Your task to perform on an android device: open app "Spotify: Music and Podcasts" (install if not already installed) and enter user name: "principled@inbox.com" and password: "arrests" Image 0: 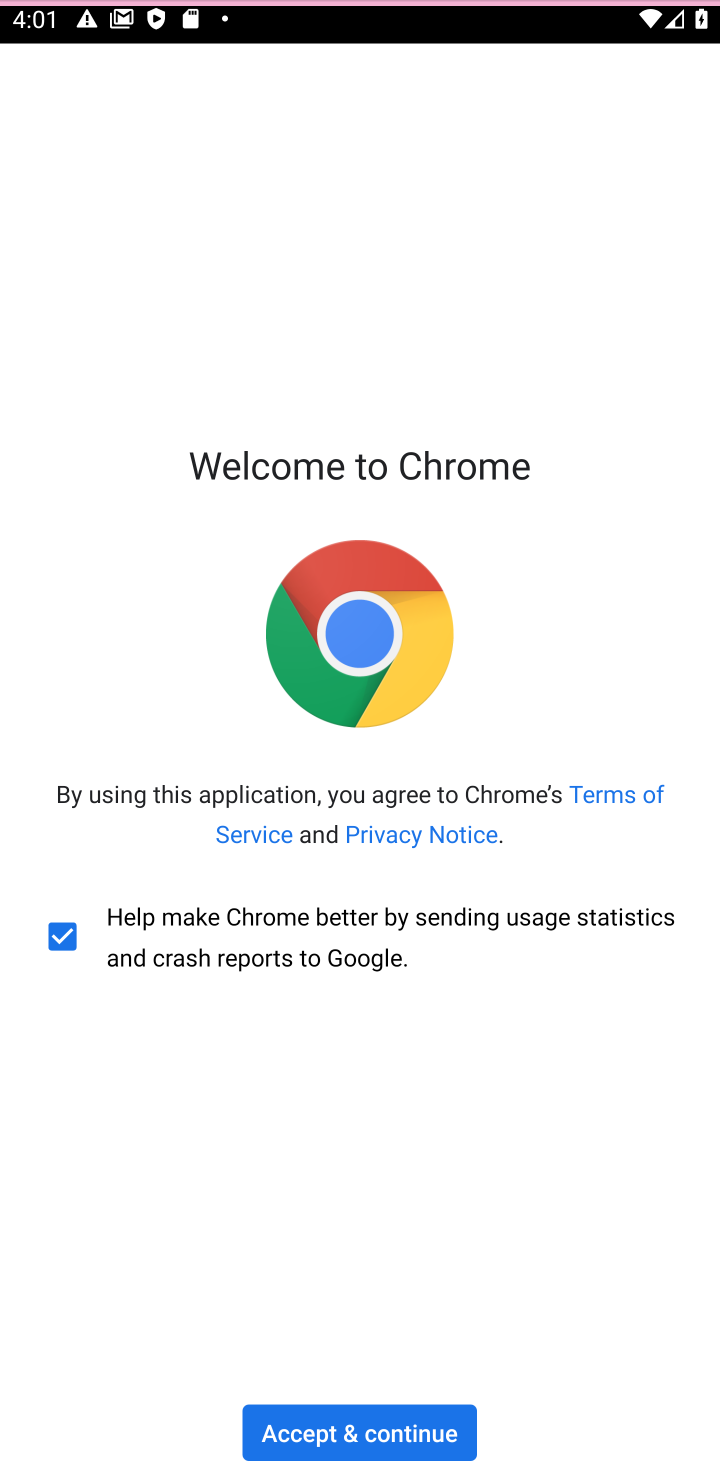
Step 0: press home button
Your task to perform on an android device: open app "Spotify: Music and Podcasts" (install if not already installed) and enter user name: "principled@inbox.com" and password: "arrests" Image 1: 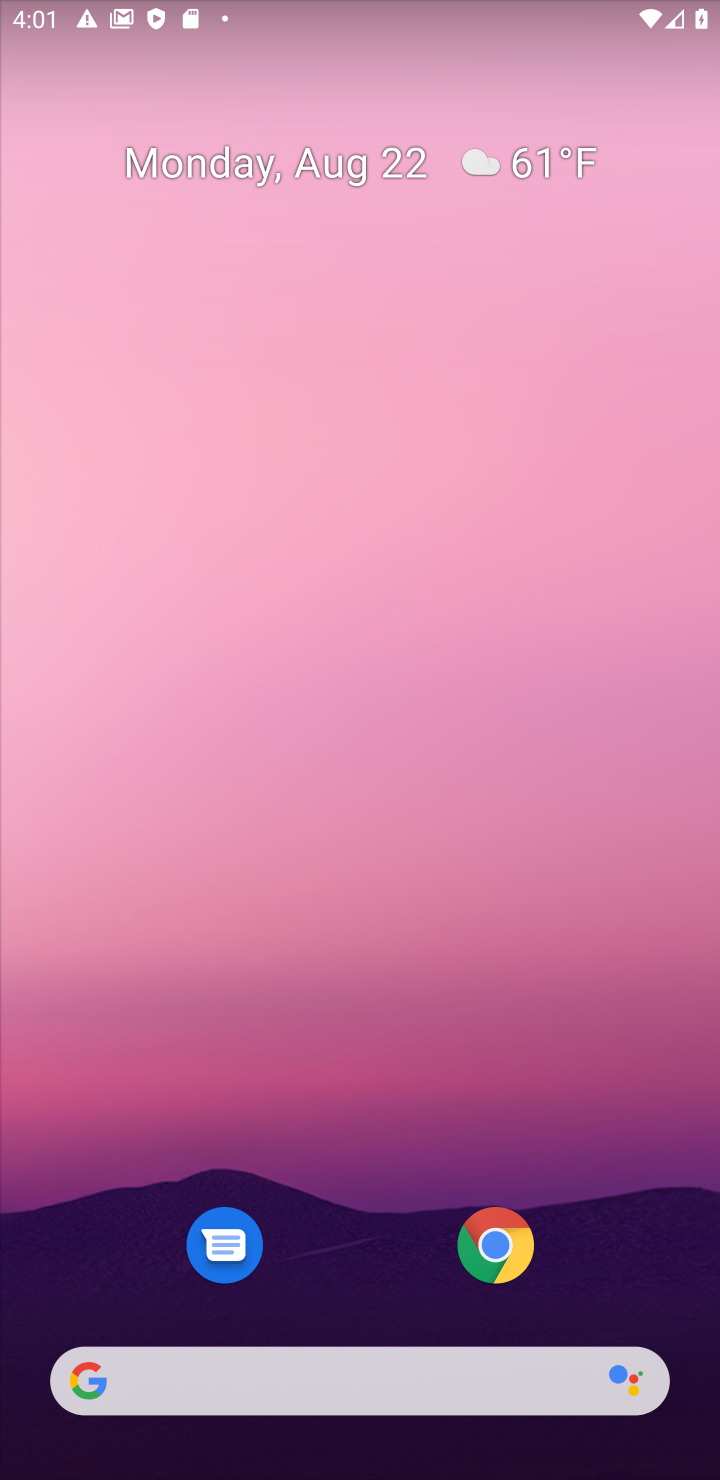
Step 1: drag from (579, 1199) to (590, 240)
Your task to perform on an android device: open app "Spotify: Music and Podcasts" (install if not already installed) and enter user name: "principled@inbox.com" and password: "arrests" Image 2: 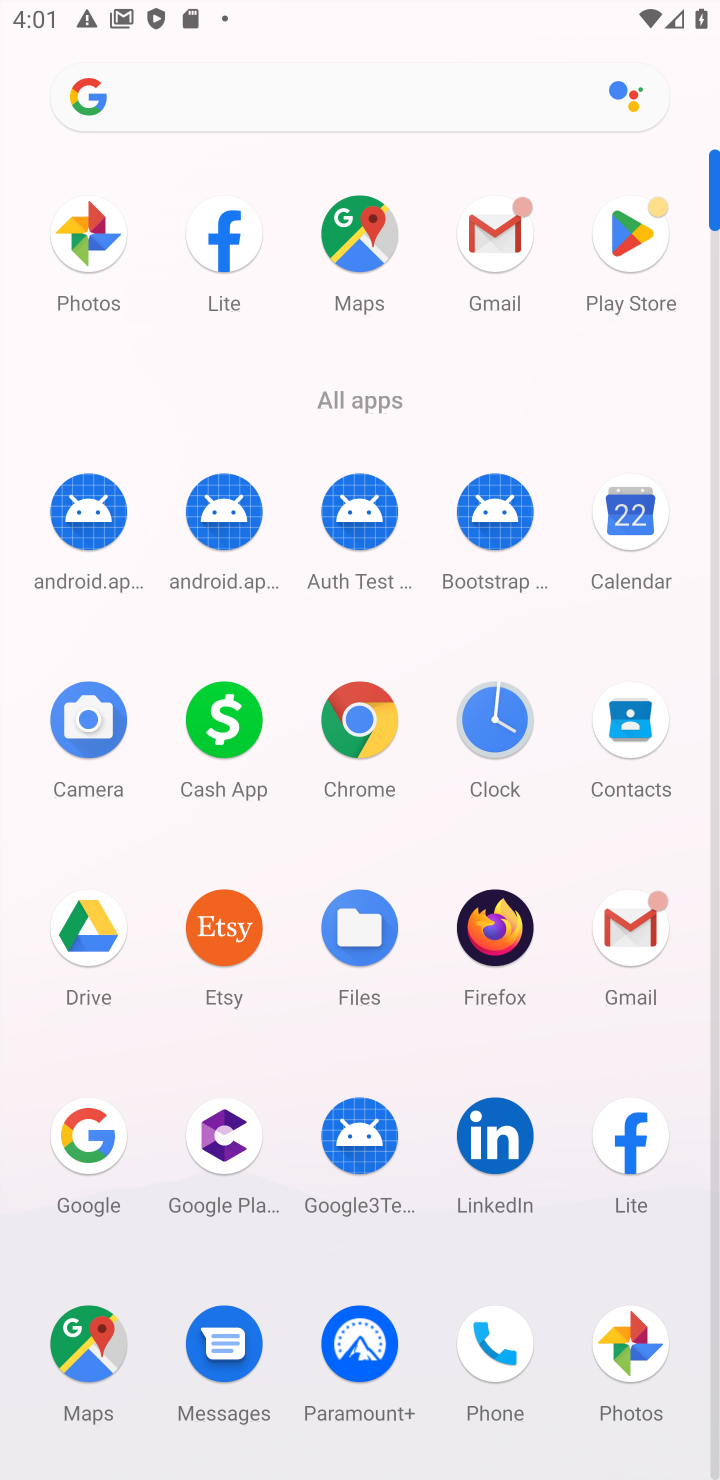
Step 2: click (633, 229)
Your task to perform on an android device: open app "Spotify: Music and Podcasts" (install if not already installed) and enter user name: "principled@inbox.com" and password: "arrests" Image 3: 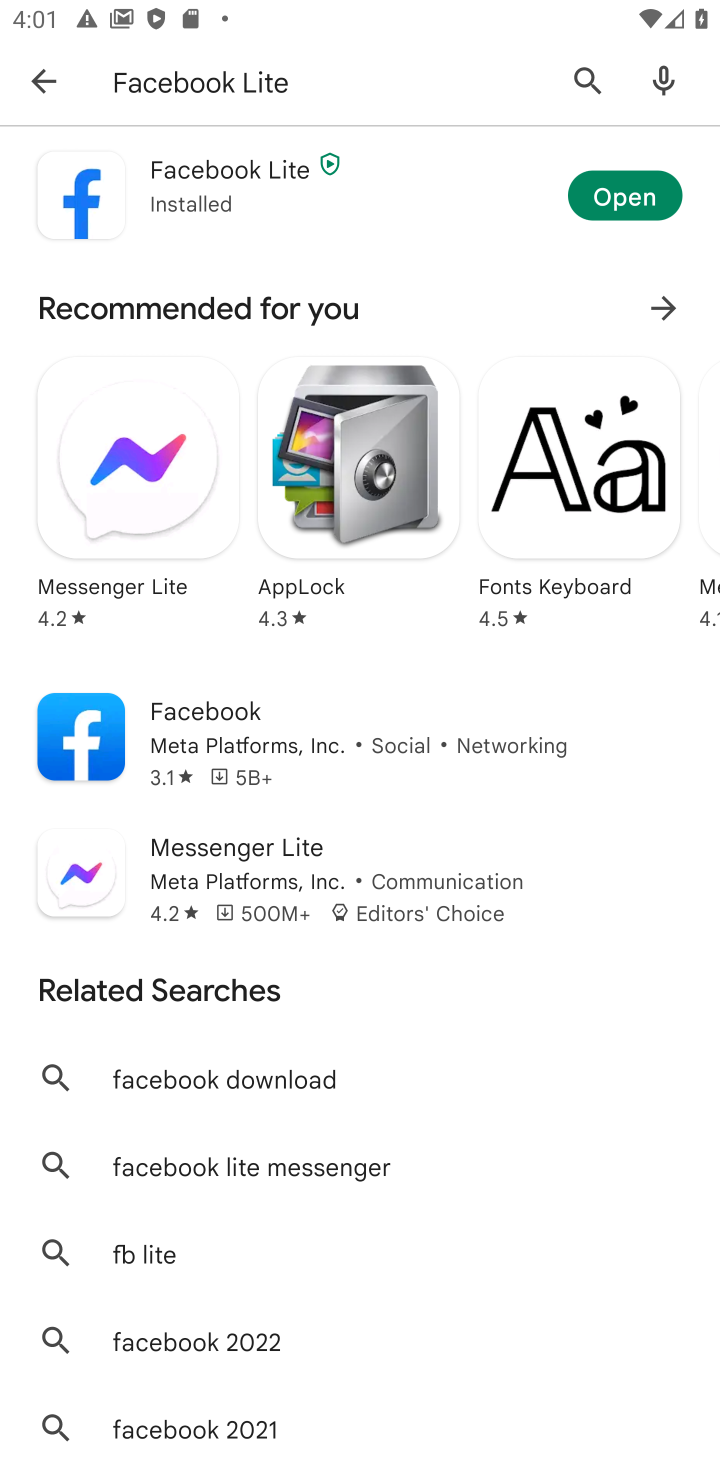
Step 3: press back button
Your task to perform on an android device: open app "Spotify: Music and Podcasts" (install if not already installed) and enter user name: "principled@inbox.com" and password: "arrests" Image 4: 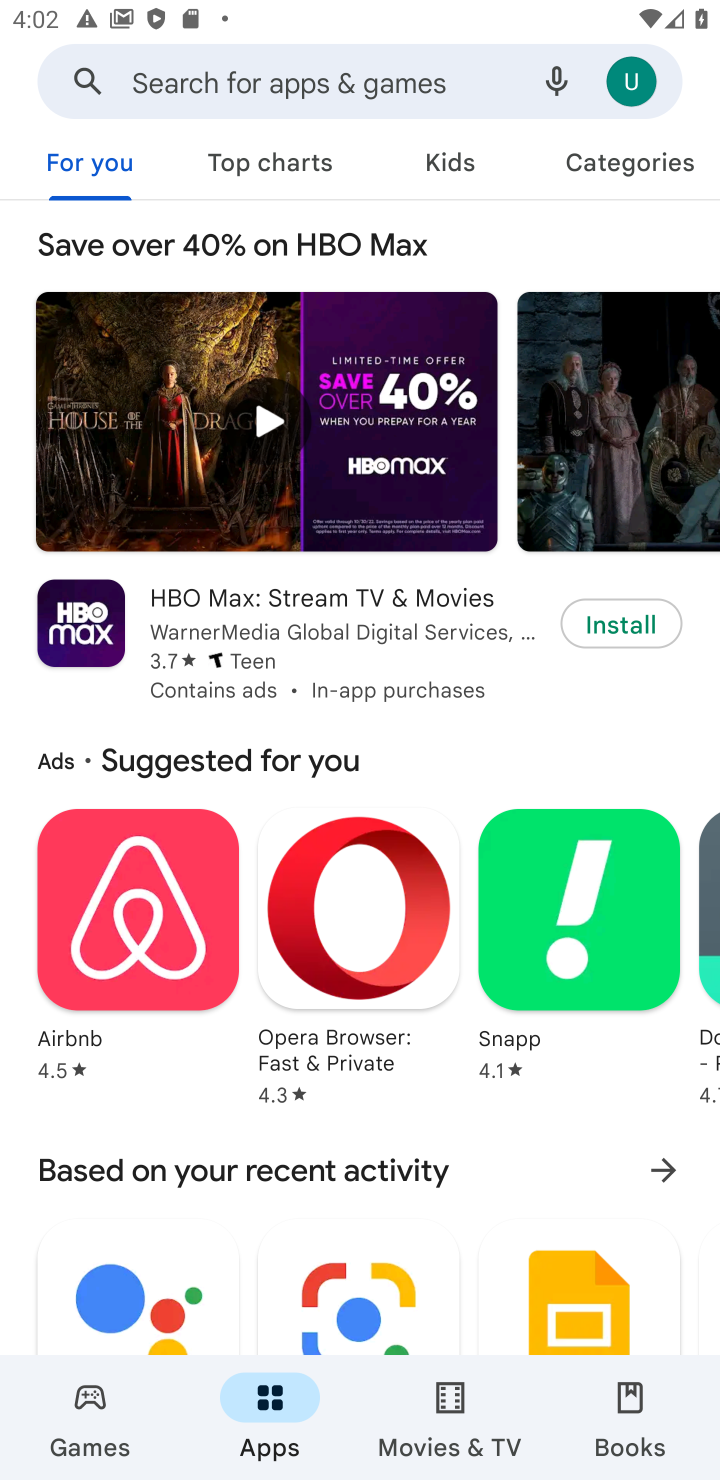
Step 4: click (301, 81)
Your task to perform on an android device: open app "Spotify: Music and Podcasts" (install if not already installed) and enter user name: "principled@inbox.com" and password: "arrests" Image 5: 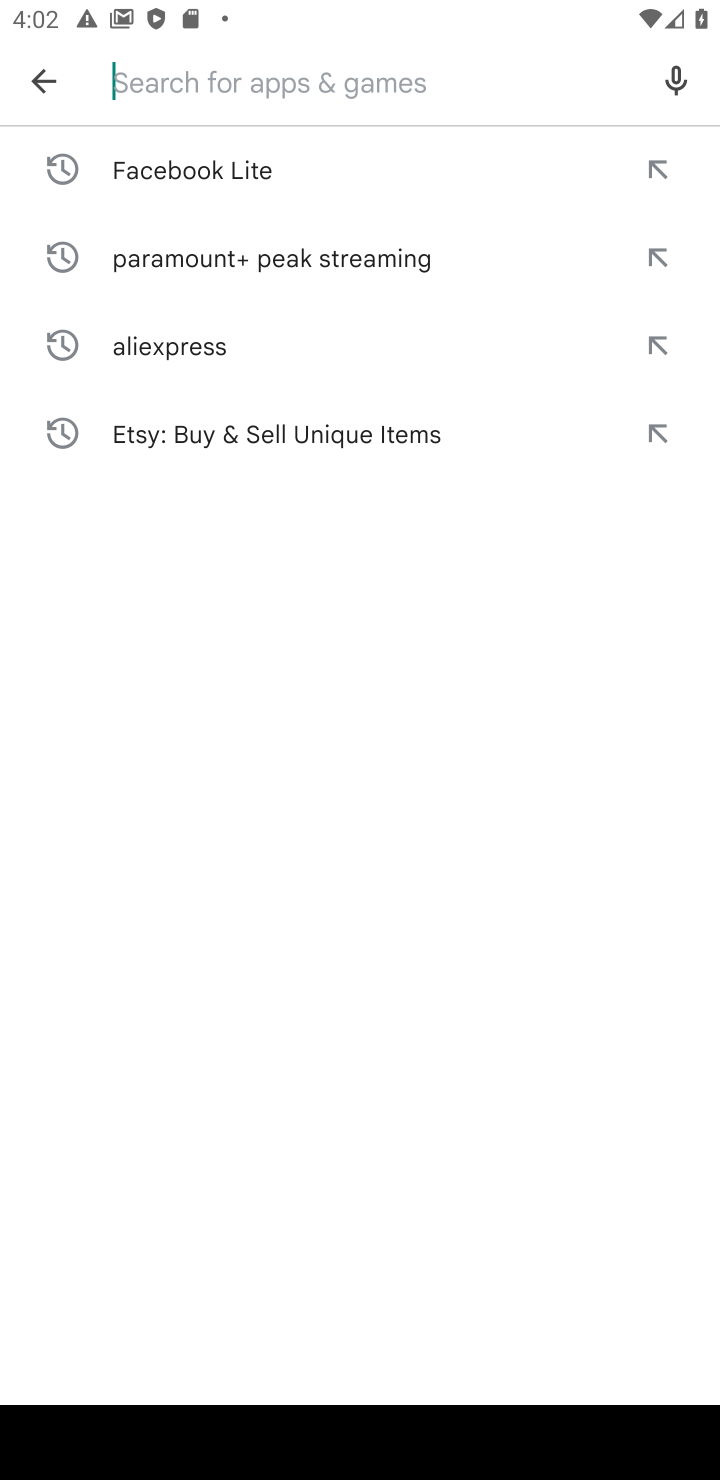
Step 5: type "Spotify: Music and Podcasts"
Your task to perform on an android device: open app "Spotify: Music and Podcasts" (install if not already installed) and enter user name: "principled@inbox.com" and password: "arrests" Image 6: 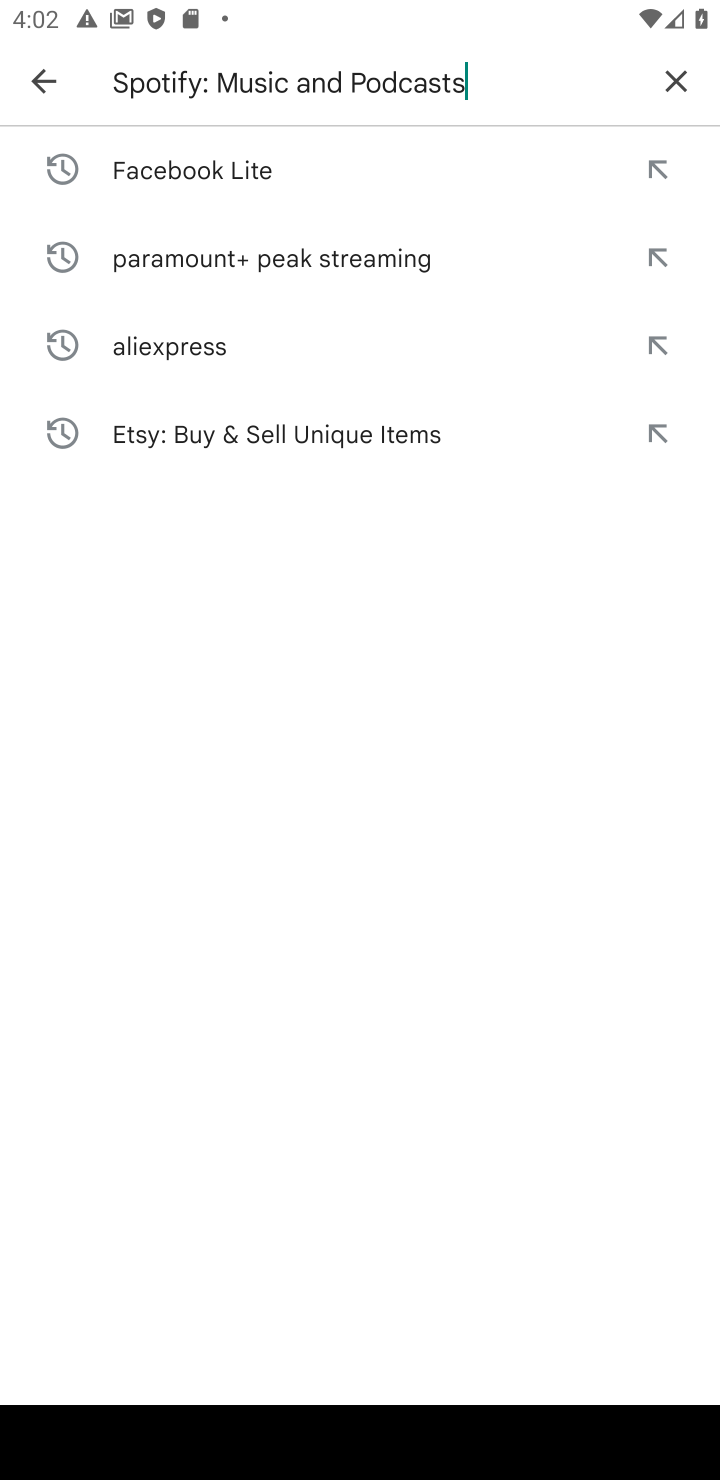
Step 6: press enter
Your task to perform on an android device: open app "Spotify: Music and Podcasts" (install if not already installed) and enter user name: "principled@inbox.com" and password: "arrests" Image 7: 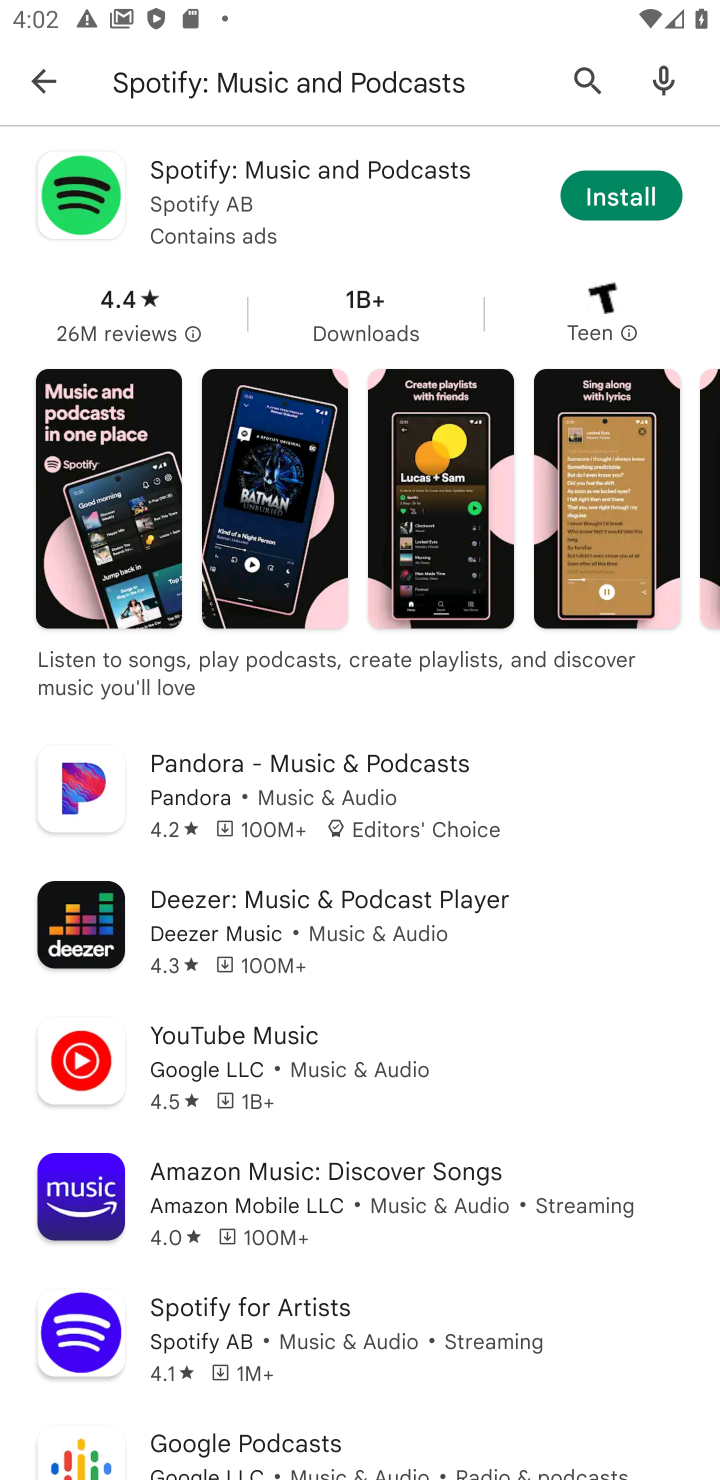
Step 7: click (647, 199)
Your task to perform on an android device: open app "Spotify: Music and Podcasts" (install if not already installed) and enter user name: "principled@inbox.com" and password: "arrests" Image 8: 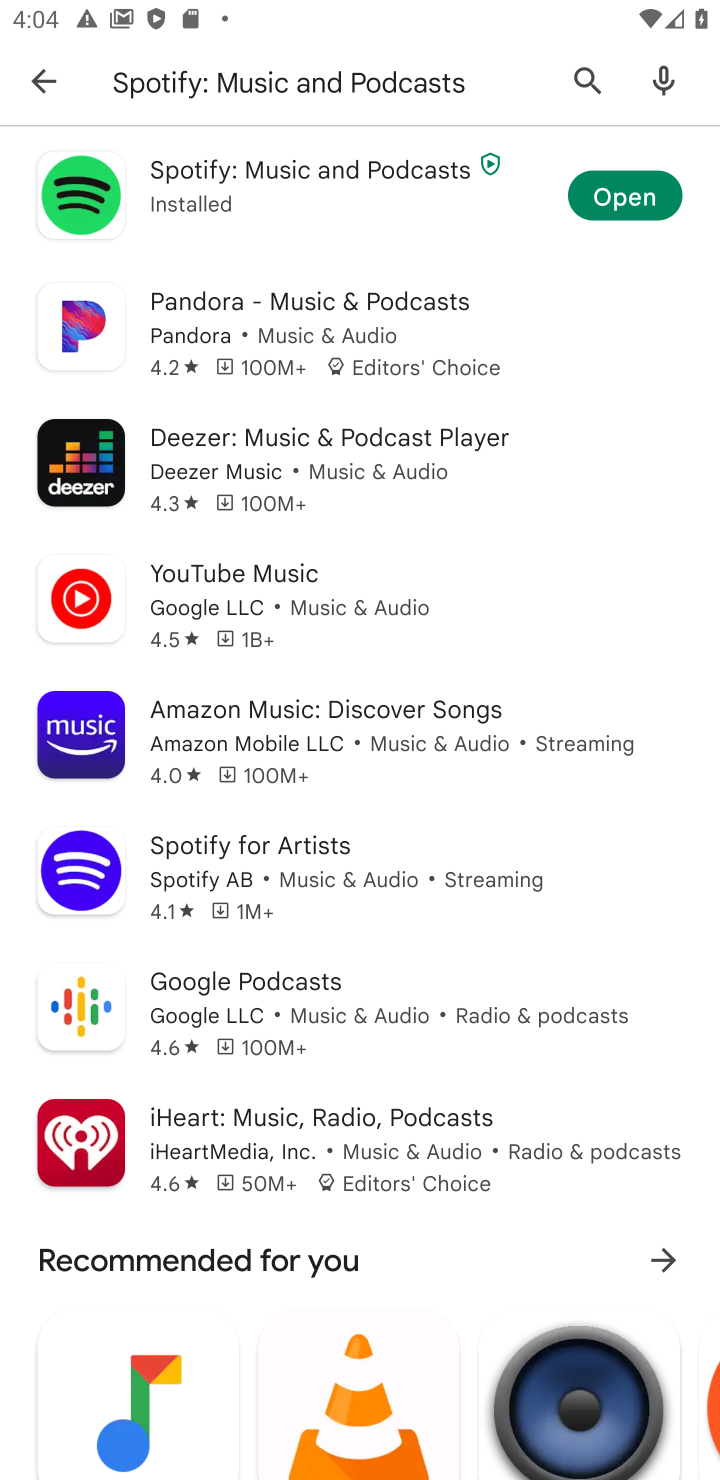
Step 8: click (634, 193)
Your task to perform on an android device: open app "Spotify: Music and Podcasts" (install if not already installed) and enter user name: "principled@inbox.com" and password: "arrests" Image 9: 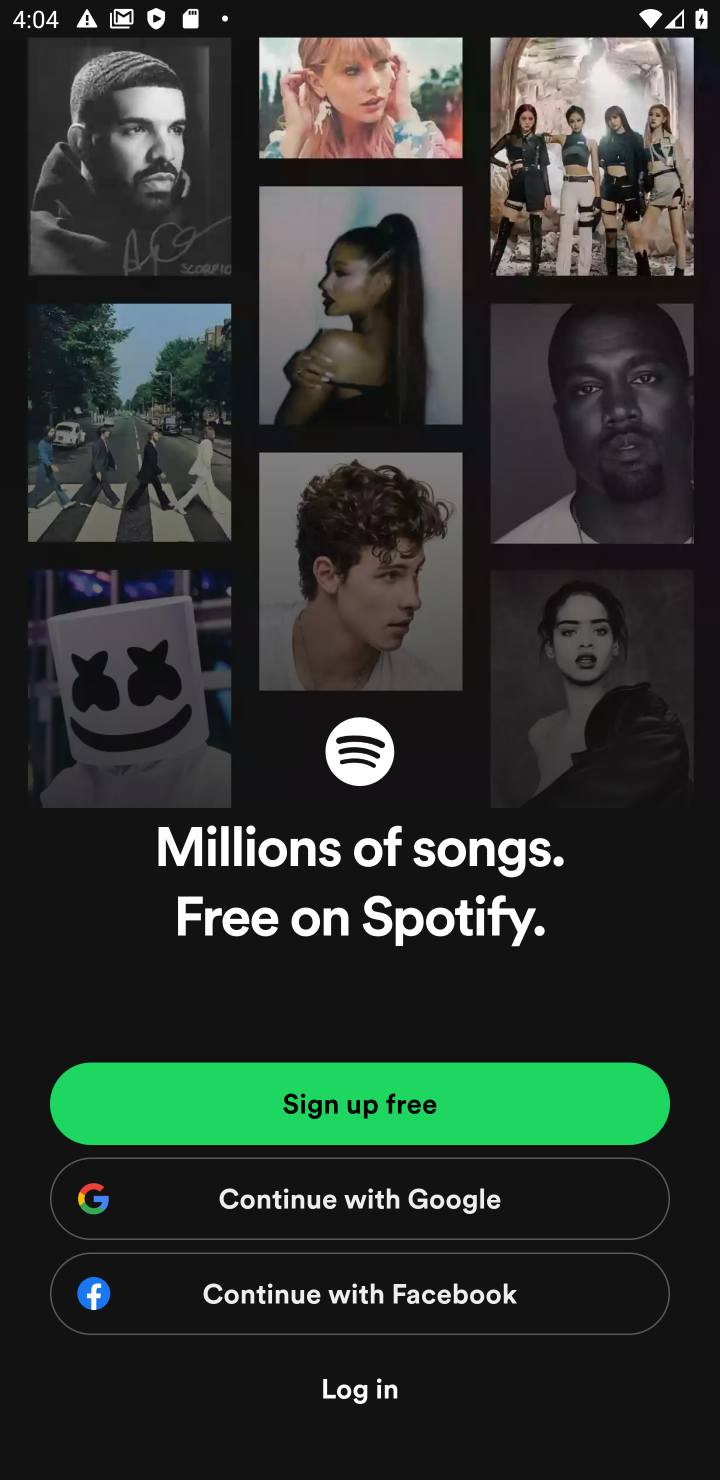
Step 9: click (384, 1390)
Your task to perform on an android device: open app "Spotify: Music and Podcasts" (install if not already installed) and enter user name: "principled@inbox.com" and password: "arrests" Image 10: 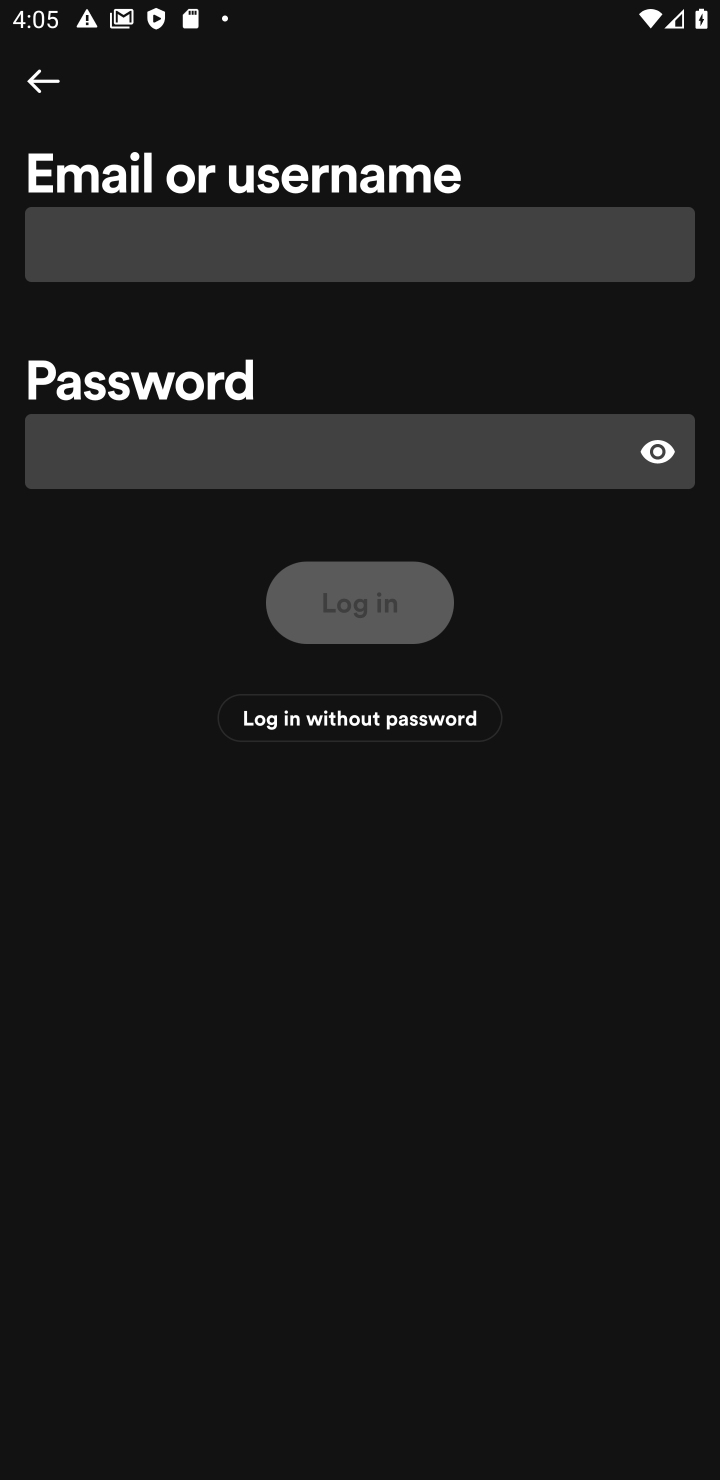
Step 10: click (411, 239)
Your task to perform on an android device: open app "Spotify: Music and Podcasts" (install if not already installed) and enter user name: "principled@inbox.com" and password: "arrests" Image 11: 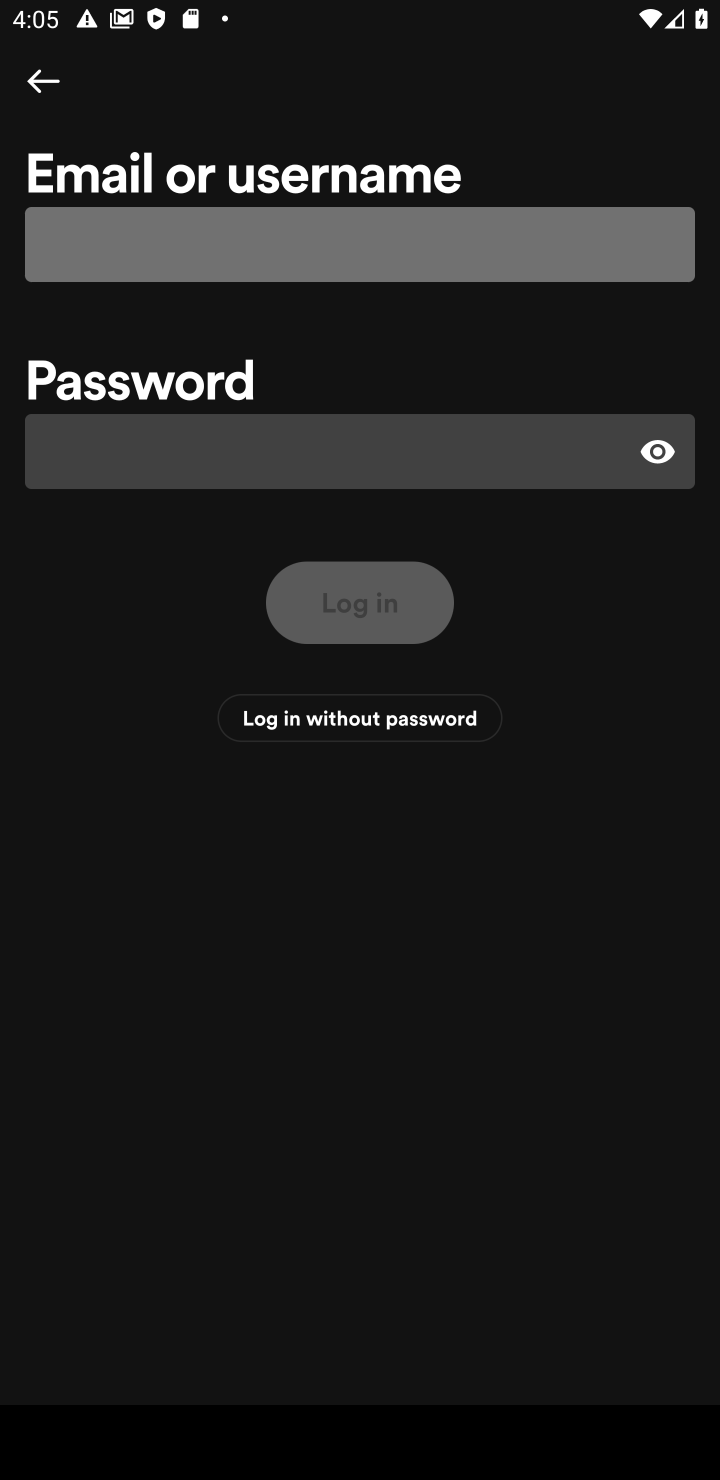
Step 11: type "principled@inbox.com"
Your task to perform on an android device: open app "Spotify: Music and Podcasts" (install if not already installed) and enter user name: "principled@inbox.com" and password: "arrests" Image 12: 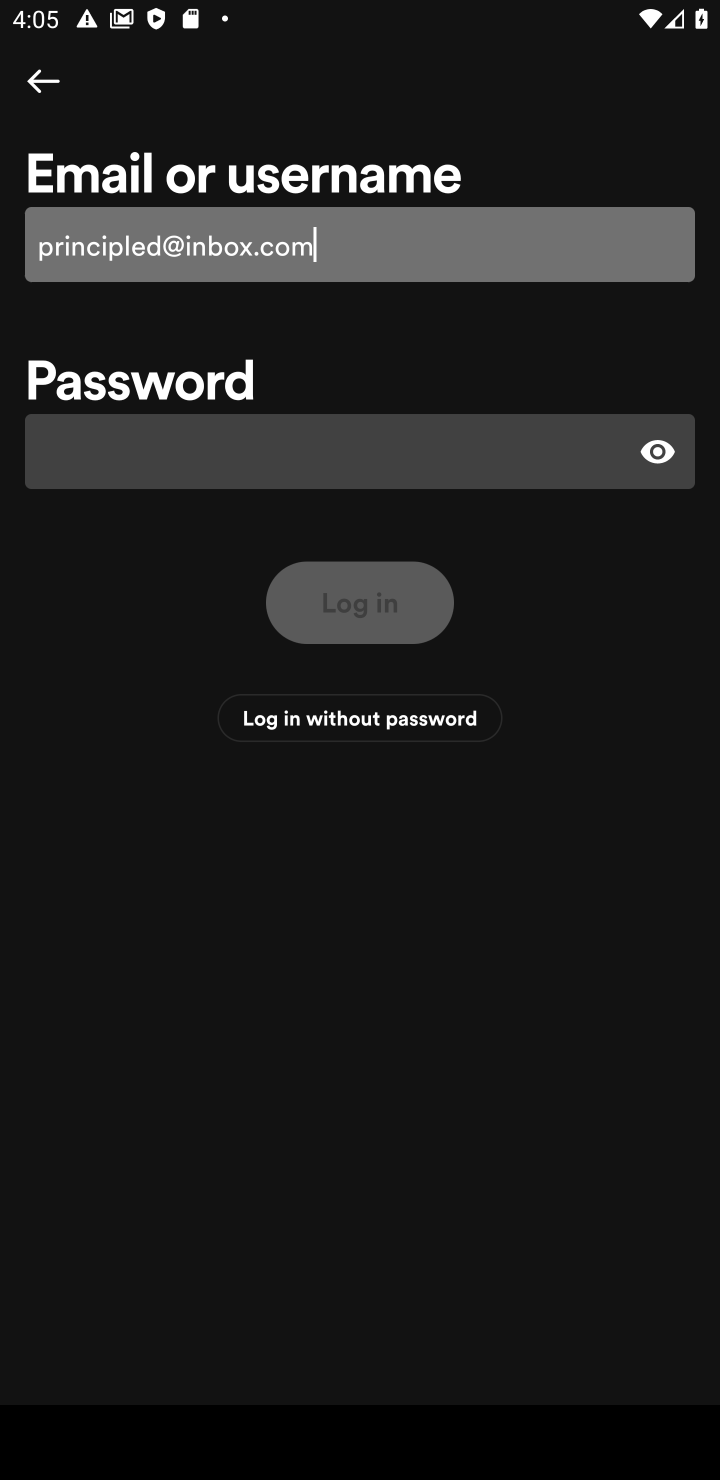
Step 12: click (262, 439)
Your task to perform on an android device: open app "Spotify: Music and Podcasts" (install if not already installed) and enter user name: "principled@inbox.com" and password: "arrests" Image 13: 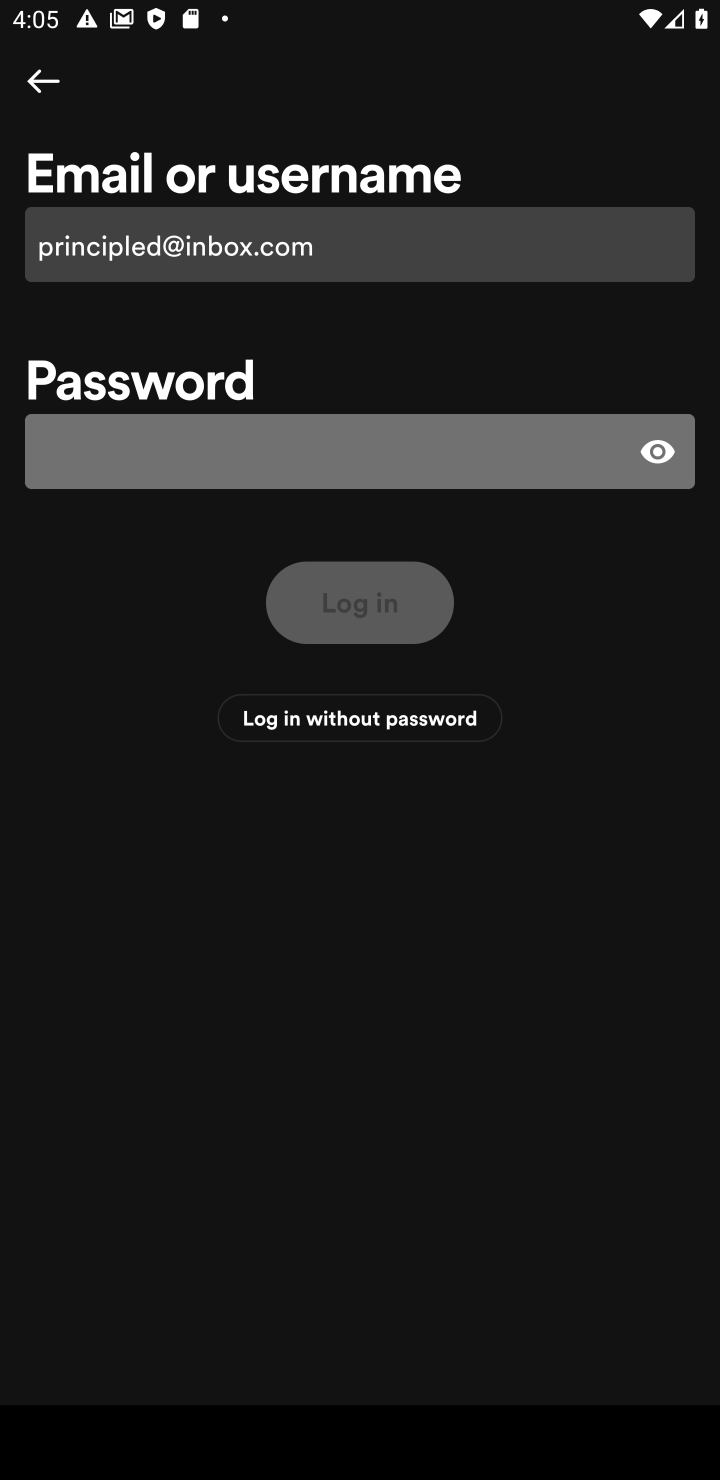
Step 13: type "arrests"
Your task to perform on an android device: open app "Spotify: Music and Podcasts" (install if not already installed) and enter user name: "principled@inbox.com" and password: "arrests" Image 14: 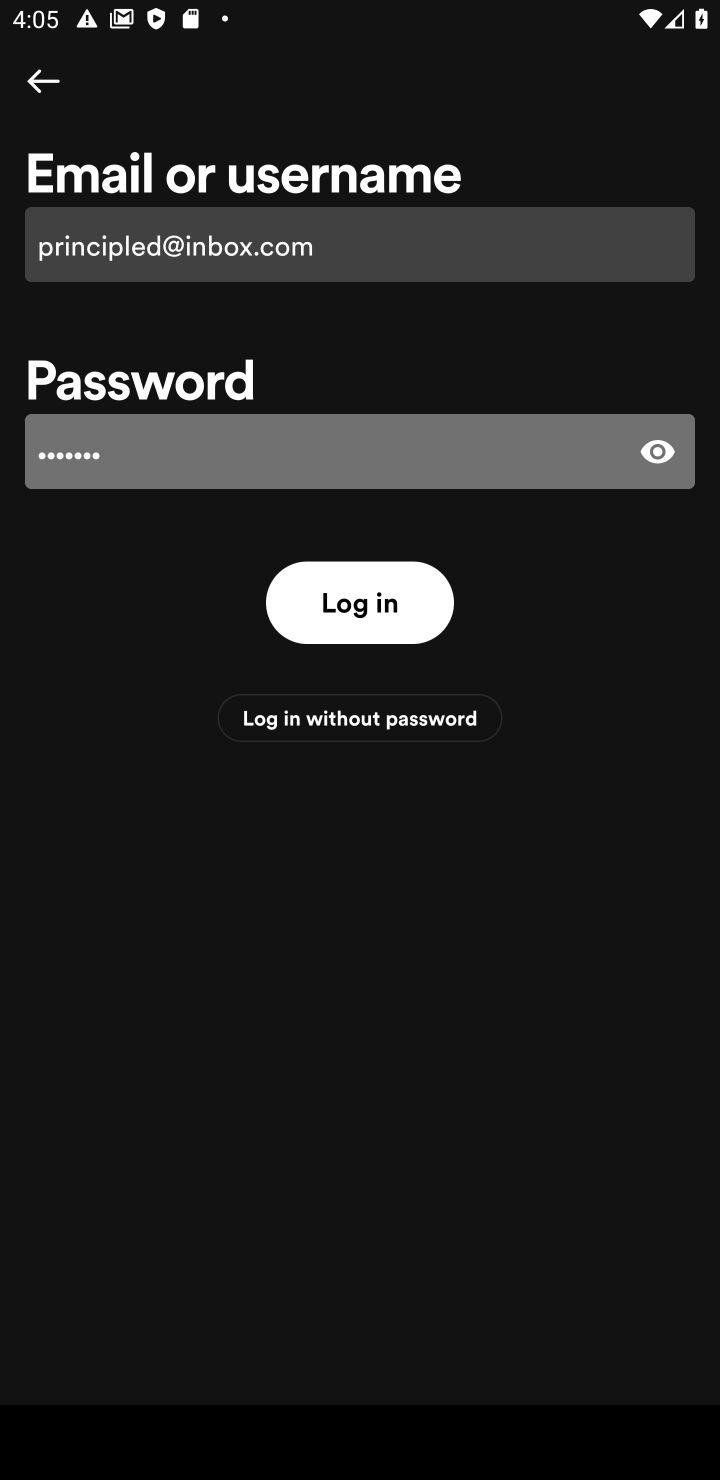
Step 14: task complete